Your task to perform on an android device: change the clock display to show seconds Image 0: 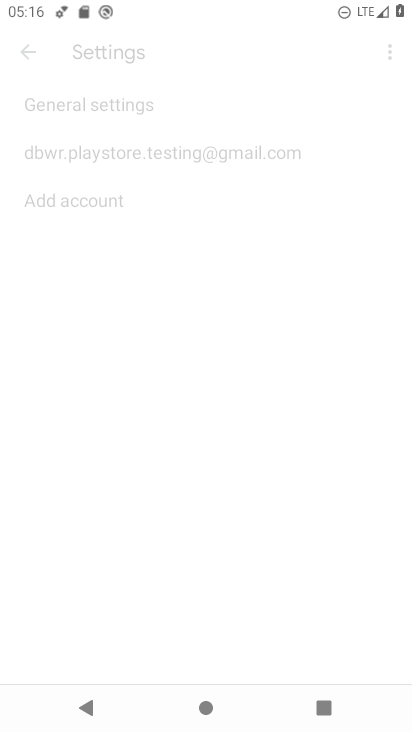
Step 0: drag from (353, 613) to (407, 336)
Your task to perform on an android device: change the clock display to show seconds Image 1: 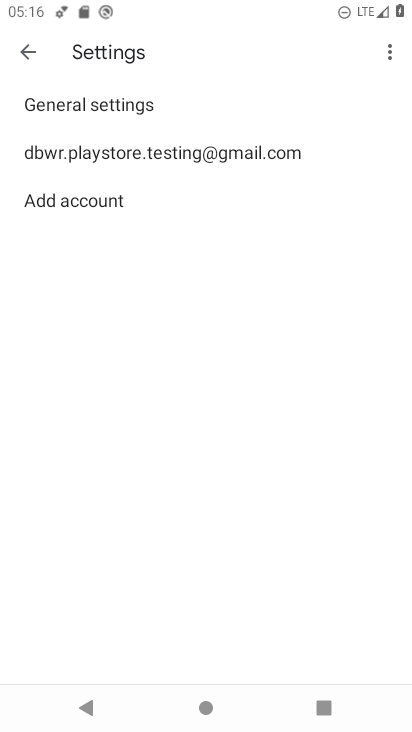
Step 1: press home button
Your task to perform on an android device: change the clock display to show seconds Image 2: 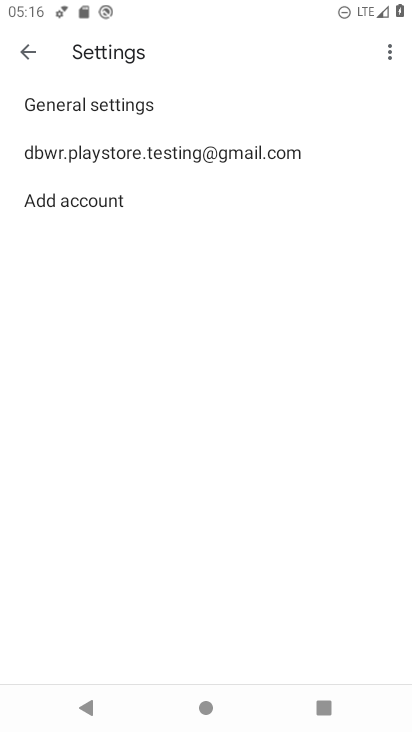
Step 2: click (387, 627)
Your task to perform on an android device: change the clock display to show seconds Image 3: 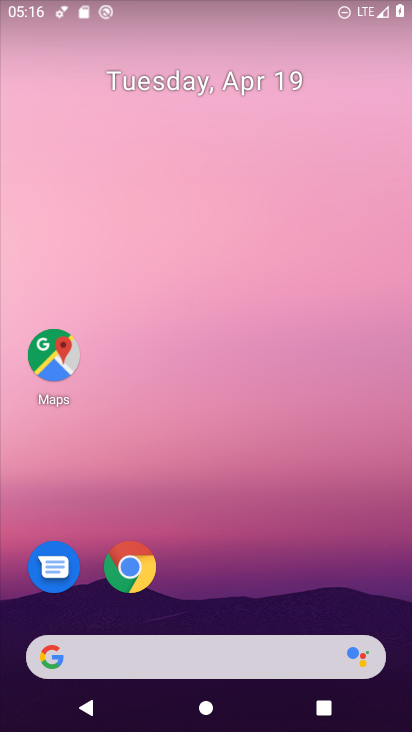
Step 3: drag from (215, 356) to (281, 2)
Your task to perform on an android device: change the clock display to show seconds Image 4: 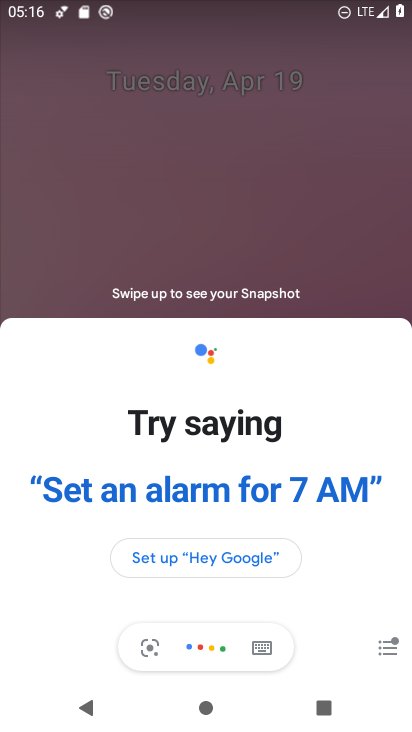
Step 4: click (325, 226)
Your task to perform on an android device: change the clock display to show seconds Image 5: 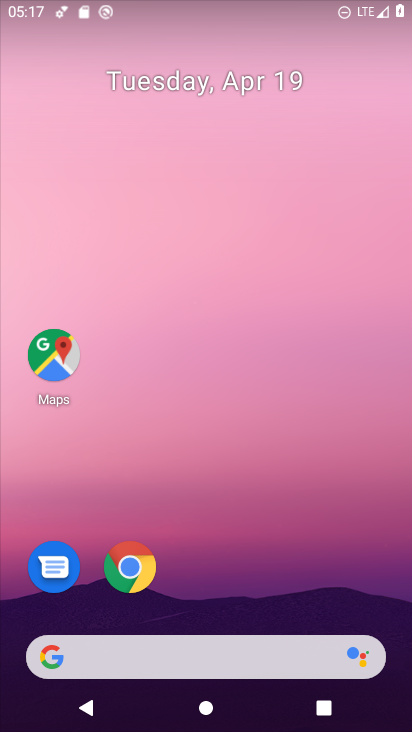
Step 5: drag from (369, 628) to (296, 11)
Your task to perform on an android device: change the clock display to show seconds Image 6: 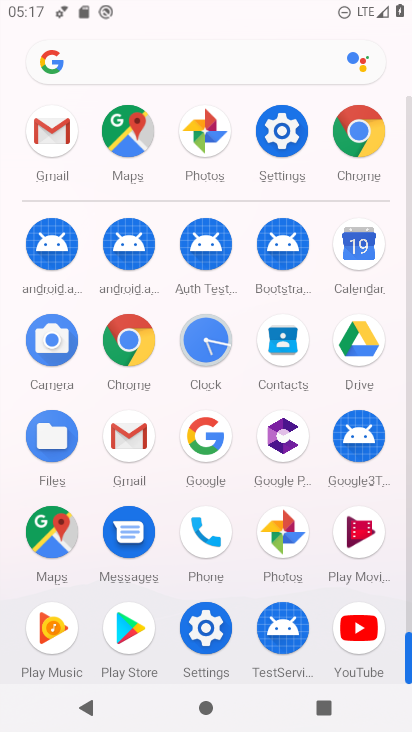
Step 6: click (206, 346)
Your task to perform on an android device: change the clock display to show seconds Image 7: 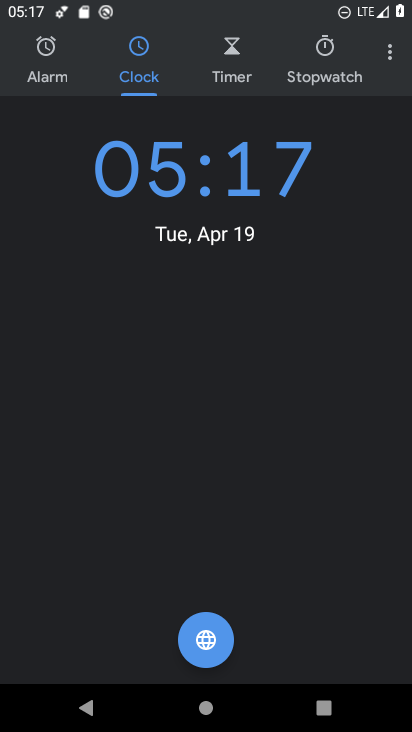
Step 7: click (380, 47)
Your task to perform on an android device: change the clock display to show seconds Image 8: 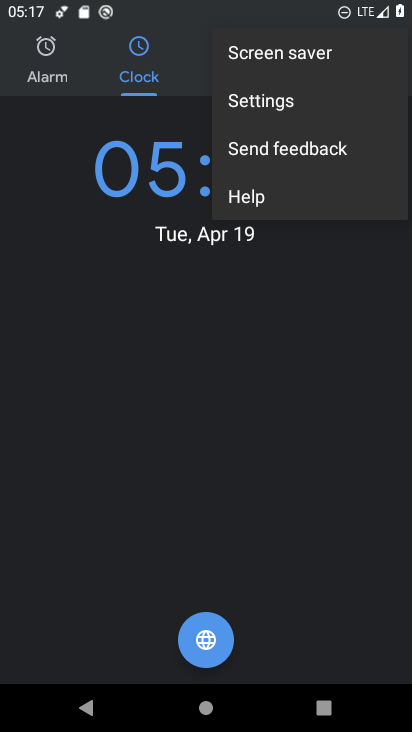
Step 8: click (280, 95)
Your task to perform on an android device: change the clock display to show seconds Image 9: 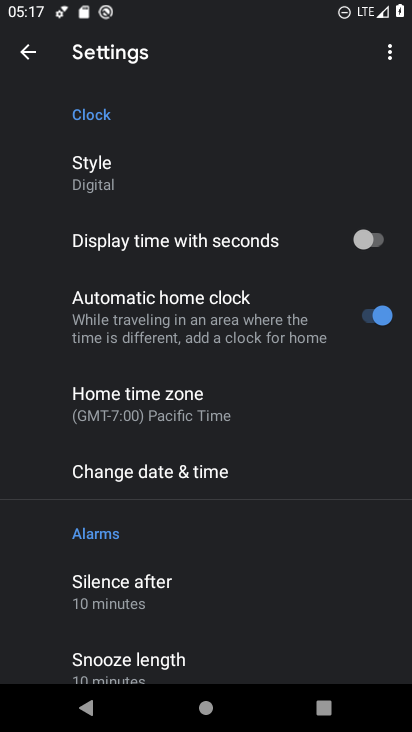
Step 9: click (381, 241)
Your task to perform on an android device: change the clock display to show seconds Image 10: 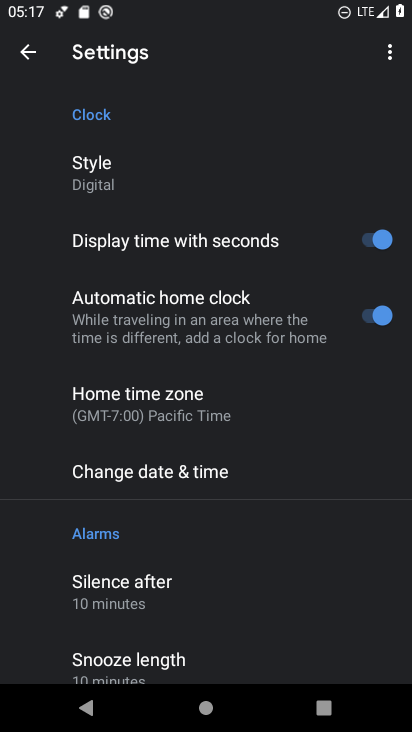
Step 10: task complete